Your task to perform on an android device: Open the calendar and show me this week's events? Image 0: 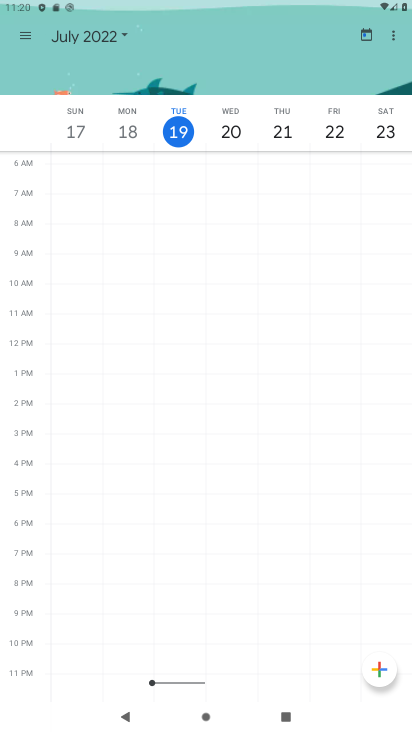
Step 0: press home button
Your task to perform on an android device: Open the calendar and show me this week's events? Image 1: 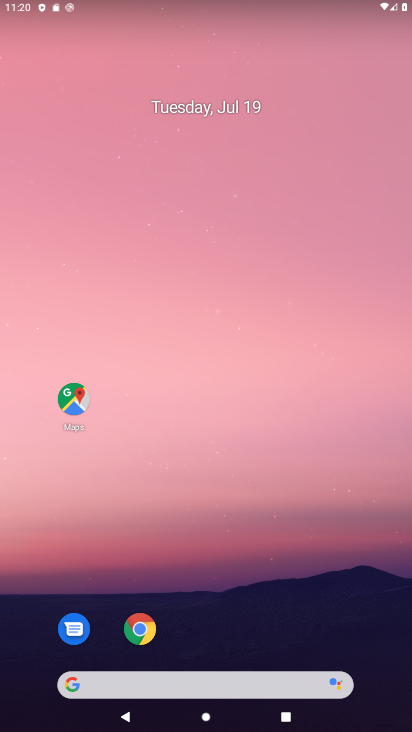
Step 1: drag from (337, 652) to (285, 148)
Your task to perform on an android device: Open the calendar and show me this week's events? Image 2: 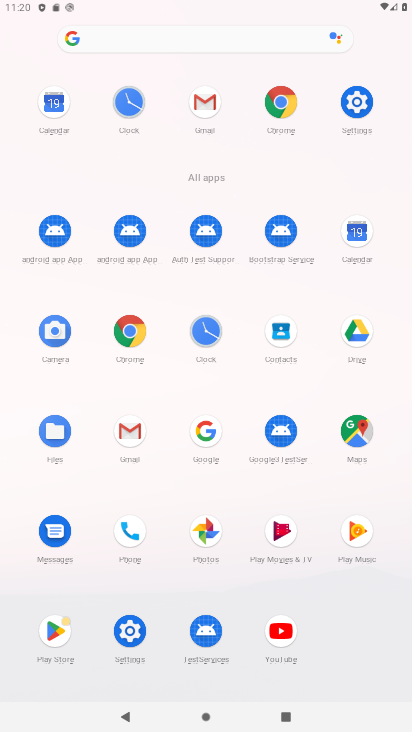
Step 2: click (350, 237)
Your task to perform on an android device: Open the calendar and show me this week's events? Image 3: 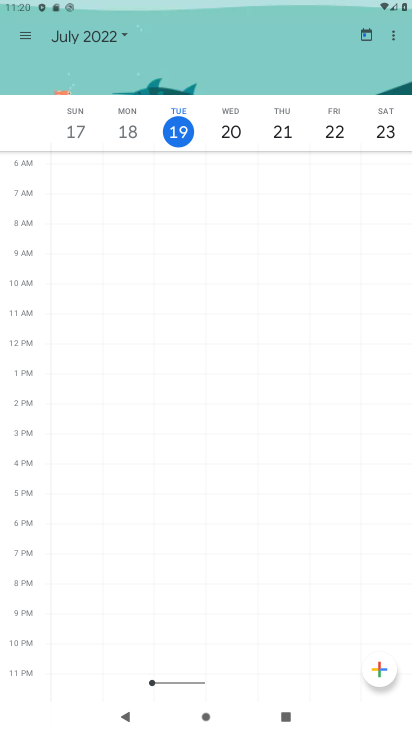
Step 3: task complete